Your task to perform on an android device: choose inbox layout in the gmail app Image 0: 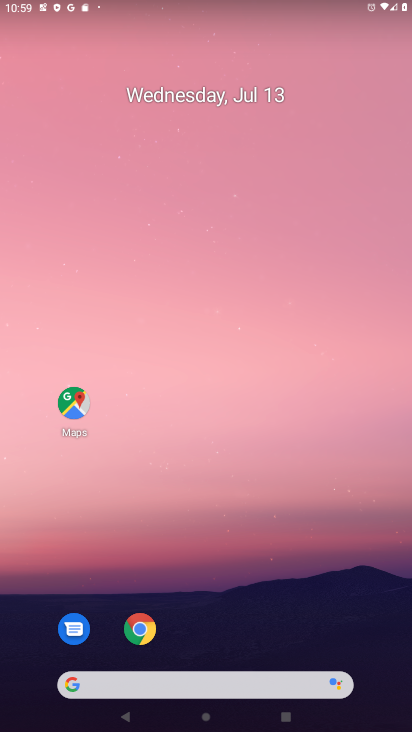
Step 0: drag from (285, 628) to (248, 106)
Your task to perform on an android device: choose inbox layout in the gmail app Image 1: 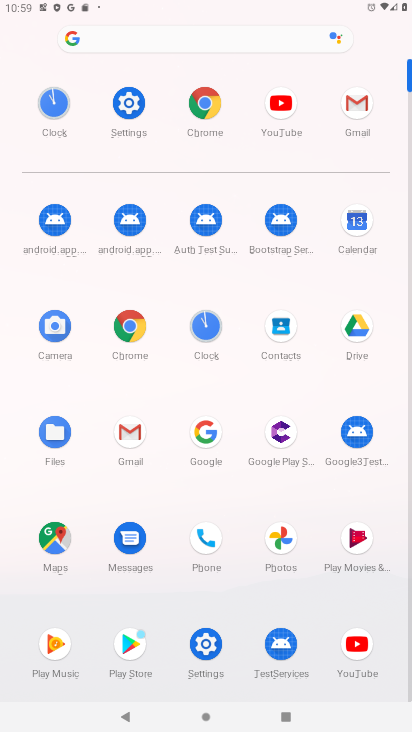
Step 1: click (363, 108)
Your task to perform on an android device: choose inbox layout in the gmail app Image 2: 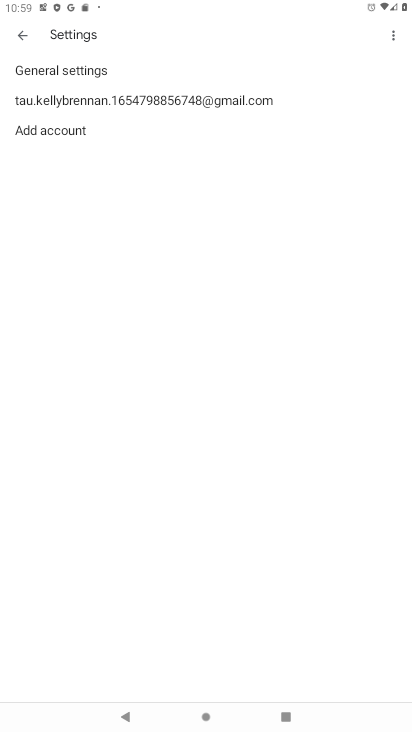
Step 2: click (22, 38)
Your task to perform on an android device: choose inbox layout in the gmail app Image 3: 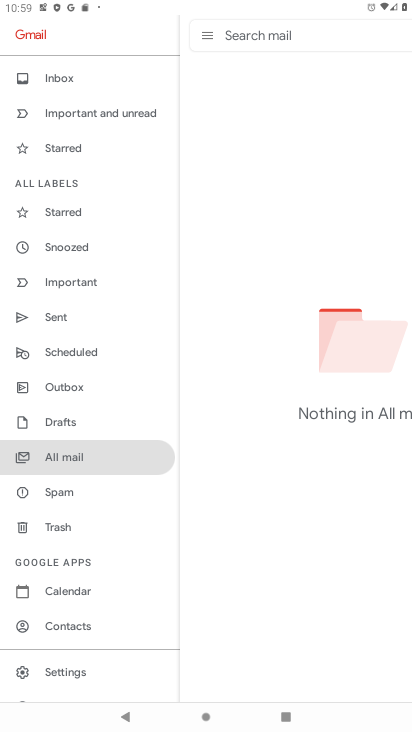
Step 3: click (64, 80)
Your task to perform on an android device: choose inbox layout in the gmail app Image 4: 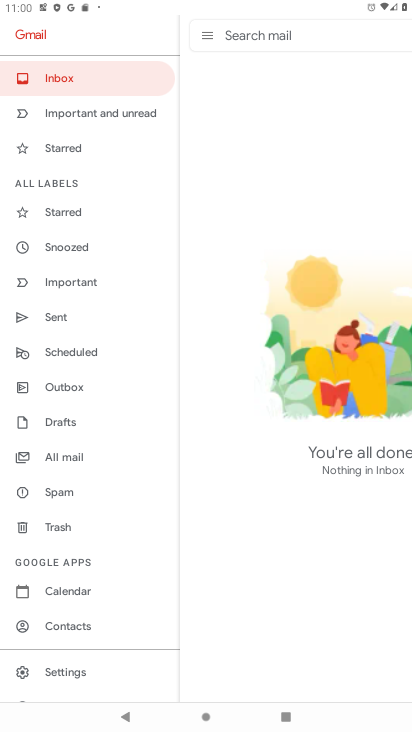
Step 4: task complete